Your task to perform on an android device: move a message to another label in the gmail app Image 0: 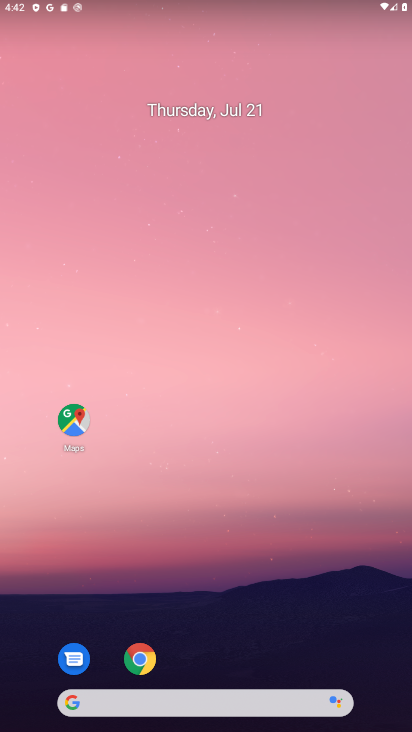
Step 0: drag from (253, 558) to (200, 49)
Your task to perform on an android device: move a message to another label in the gmail app Image 1: 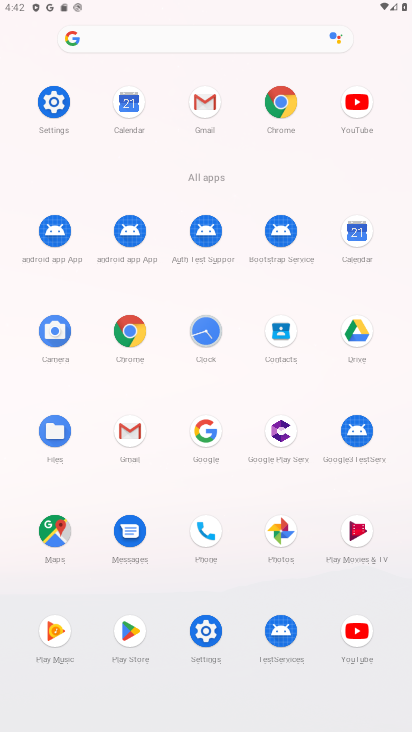
Step 1: click (207, 100)
Your task to perform on an android device: move a message to another label in the gmail app Image 2: 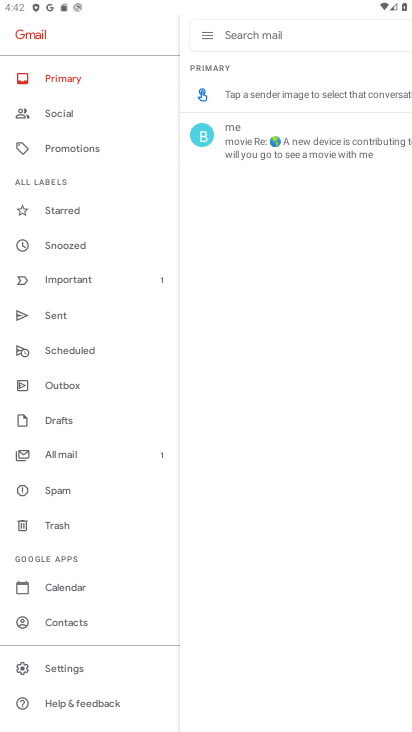
Step 2: click (280, 127)
Your task to perform on an android device: move a message to another label in the gmail app Image 3: 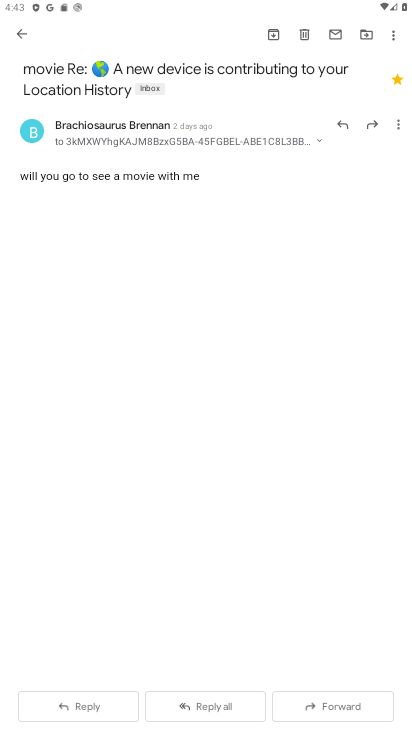
Step 3: click (398, 116)
Your task to perform on an android device: move a message to another label in the gmail app Image 4: 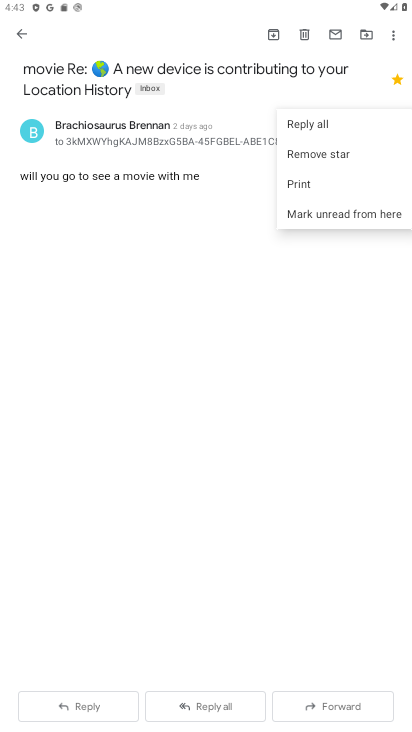
Step 4: click (320, 332)
Your task to perform on an android device: move a message to another label in the gmail app Image 5: 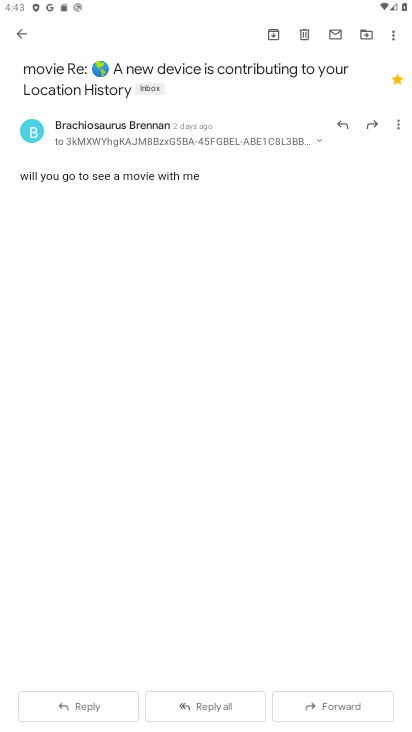
Step 5: click (396, 30)
Your task to perform on an android device: move a message to another label in the gmail app Image 6: 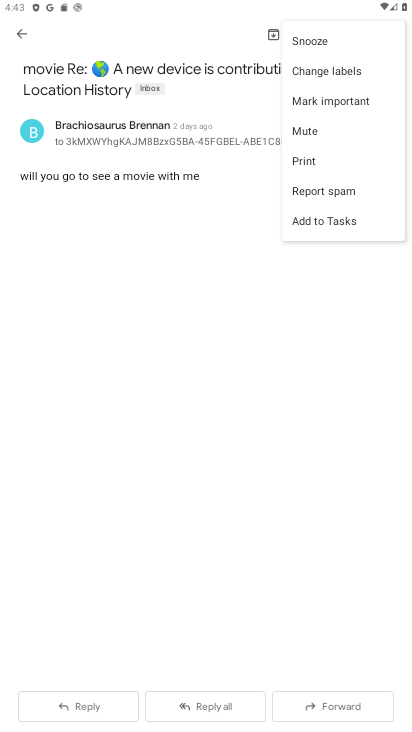
Step 6: click (320, 64)
Your task to perform on an android device: move a message to another label in the gmail app Image 7: 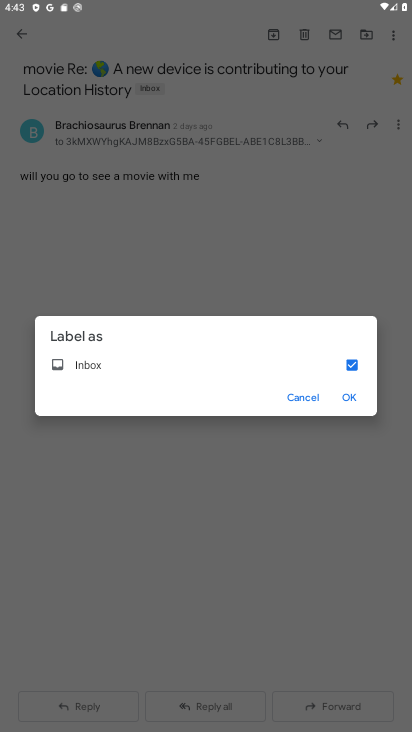
Step 7: click (350, 396)
Your task to perform on an android device: move a message to another label in the gmail app Image 8: 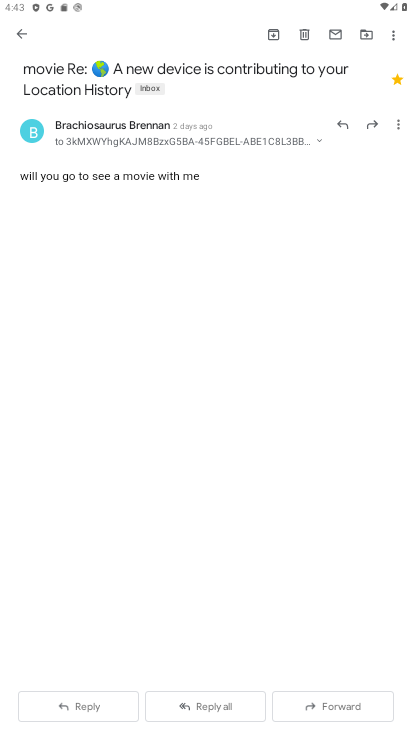
Step 8: task complete